Your task to perform on an android device: turn notification dots off Image 0: 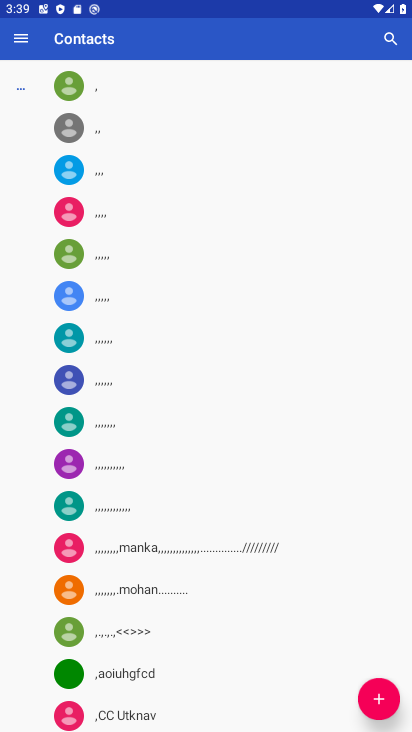
Step 0: drag from (285, 588) to (238, 185)
Your task to perform on an android device: turn notification dots off Image 1: 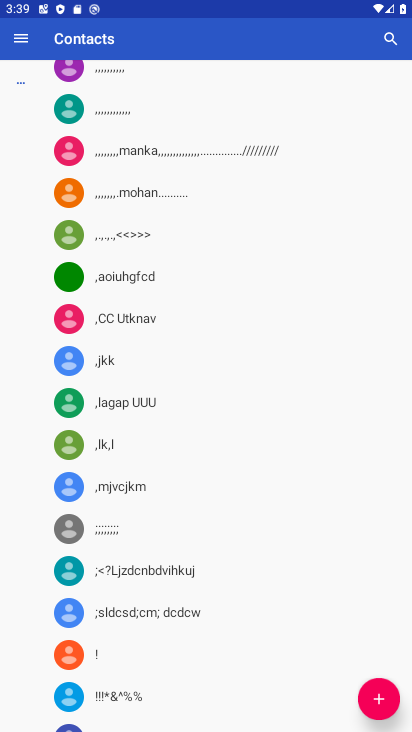
Step 1: press back button
Your task to perform on an android device: turn notification dots off Image 2: 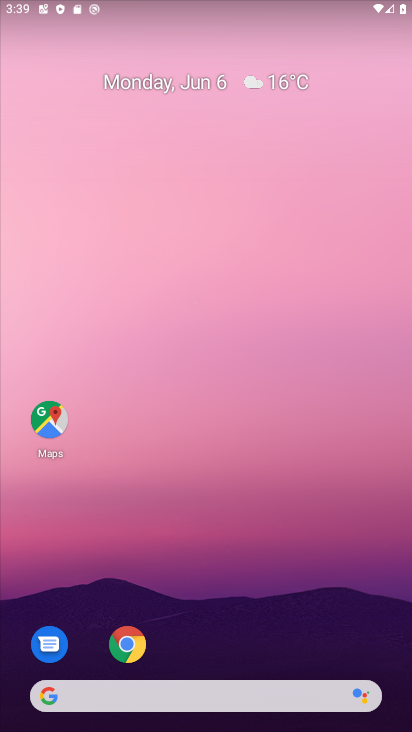
Step 2: drag from (252, 589) to (178, 35)
Your task to perform on an android device: turn notification dots off Image 3: 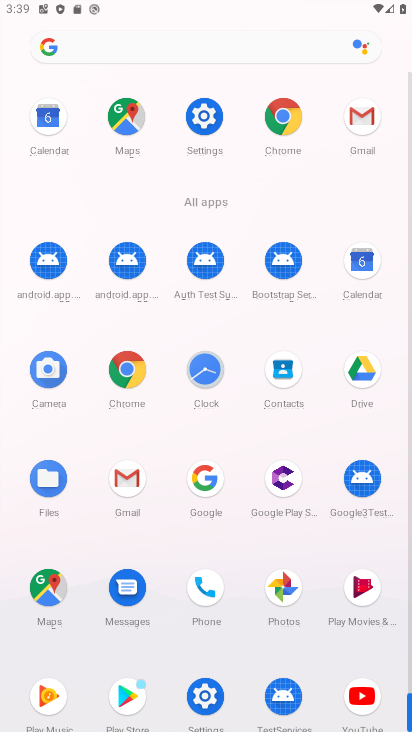
Step 3: click (204, 691)
Your task to perform on an android device: turn notification dots off Image 4: 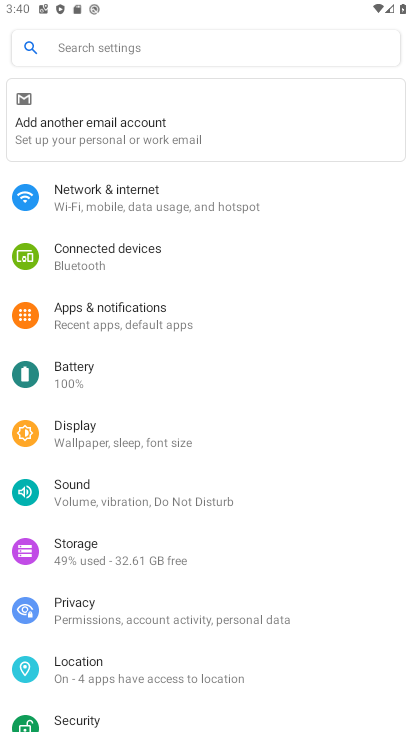
Step 4: click (141, 305)
Your task to perform on an android device: turn notification dots off Image 5: 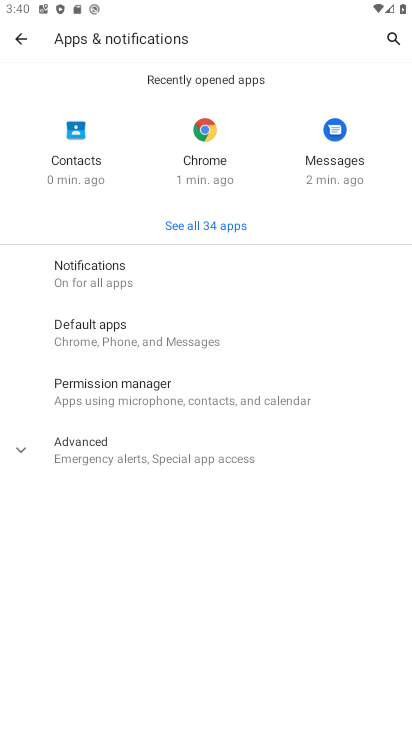
Step 5: click (44, 437)
Your task to perform on an android device: turn notification dots off Image 6: 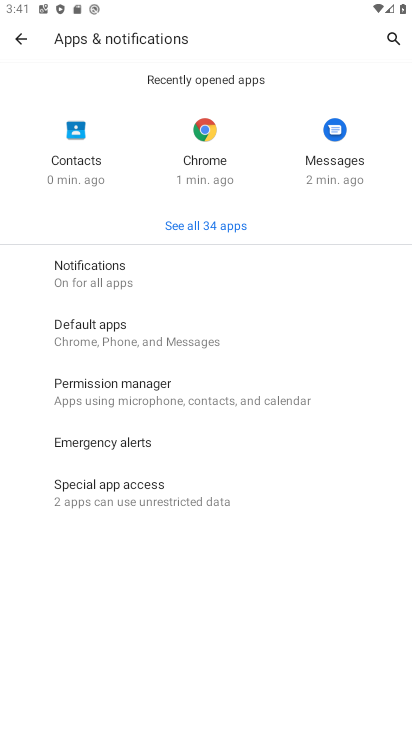
Step 6: click (23, 40)
Your task to perform on an android device: turn notification dots off Image 7: 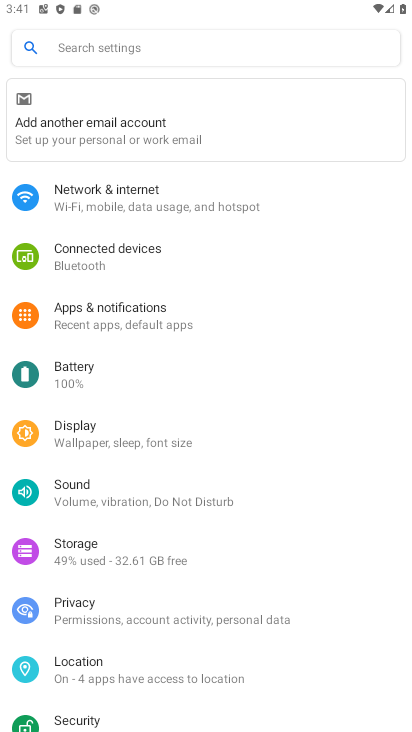
Step 7: click (122, 322)
Your task to perform on an android device: turn notification dots off Image 8: 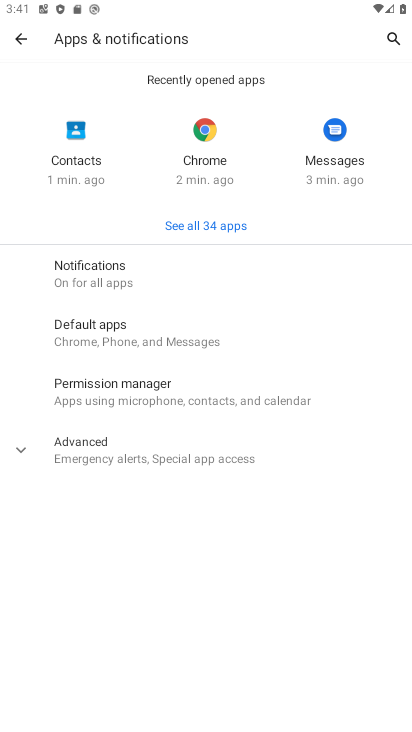
Step 8: click (151, 273)
Your task to perform on an android device: turn notification dots off Image 9: 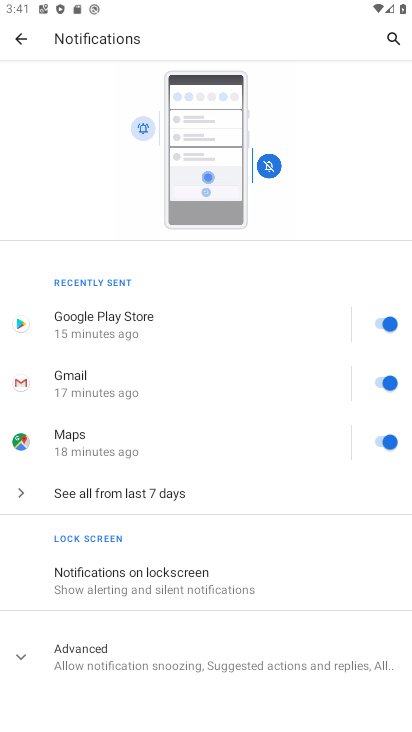
Step 9: click (88, 643)
Your task to perform on an android device: turn notification dots off Image 10: 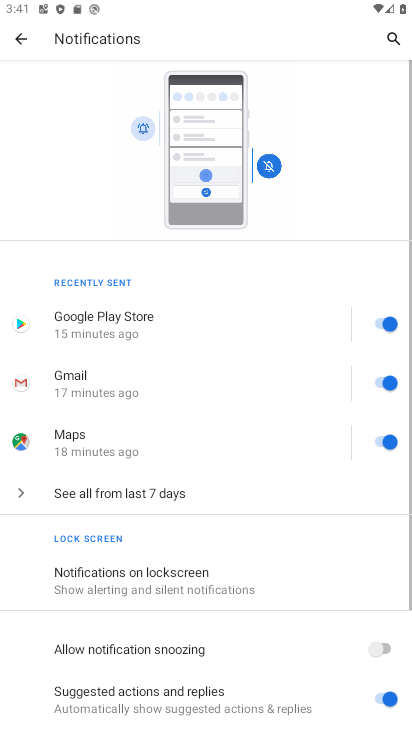
Step 10: drag from (247, 609) to (261, 290)
Your task to perform on an android device: turn notification dots off Image 11: 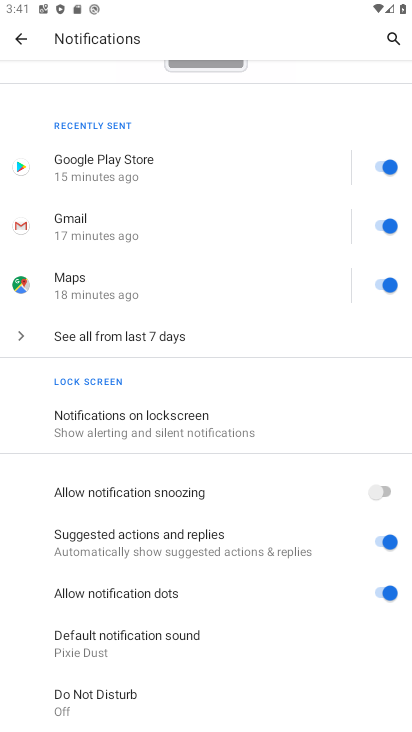
Step 11: click (381, 597)
Your task to perform on an android device: turn notification dots off Image 12: 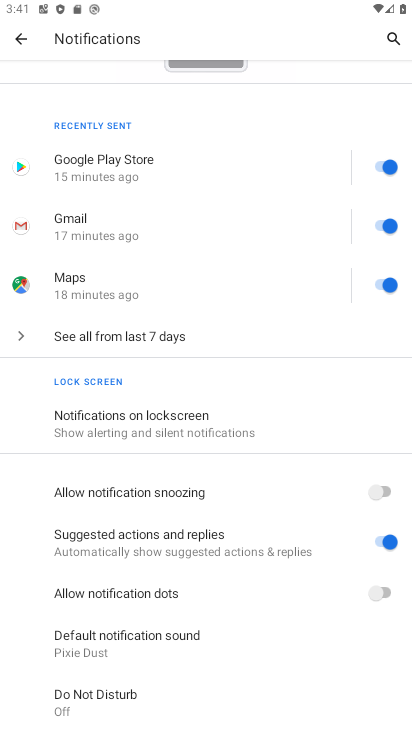
Step 12: task complete